Your task to perform on an android device: Is it going to rain tomorrow? Image 0: 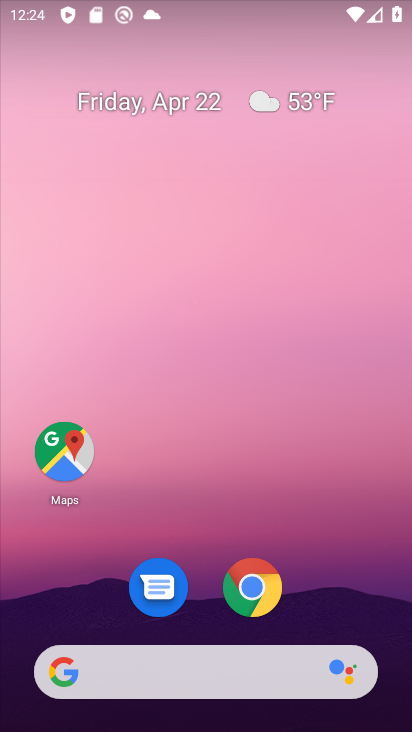
Step 0: drag from (352, 547) to (346, 88)
Your task to perform on an android device: Is it going to rain tomorrow? Image 1: 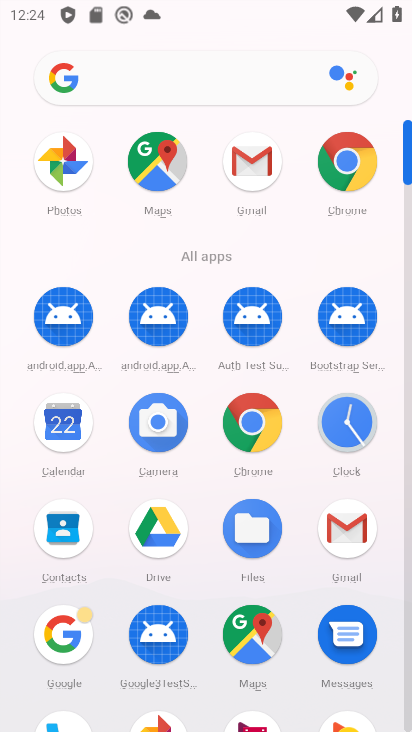
Step 1: click (253, 418)
Your task to perform on an android device: Is it going to rain tomorrow? Image 2: 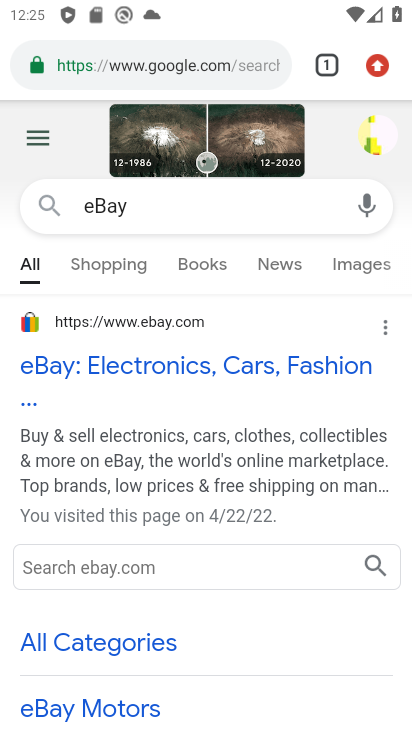
Step 2: click (252, 61)
Your task to perform on an android device: Is it going to rain tomorrow? Image 3: 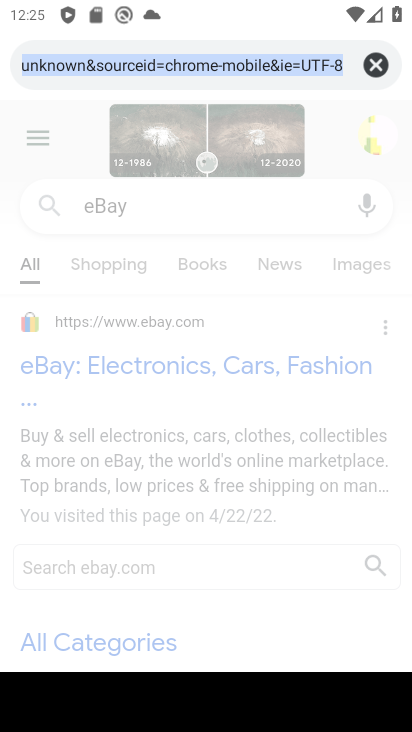
Step 3: click (370, 63)
Your task to perform on an android device: Is it going to rain tomorrow? Image 4: 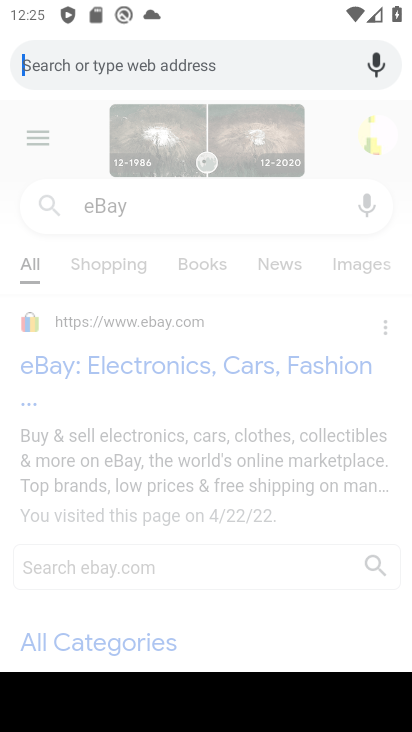
Step 4: type "Is it going to rain tomorrow?"
Your task to perform on an android device: Is it going to rain tomorrow? Image 5: 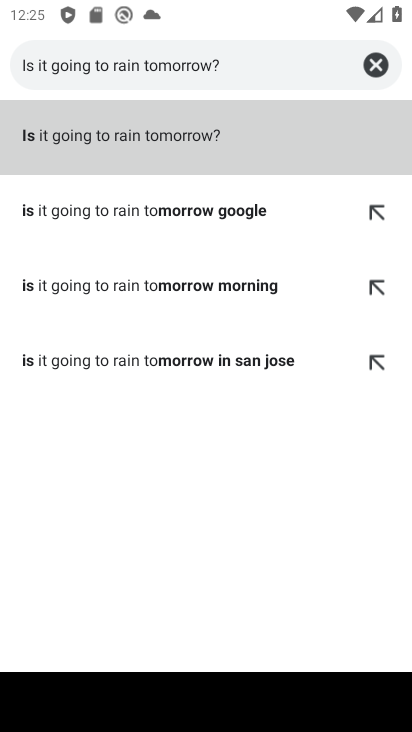
Step 5: click (114, 137)
Your task to perform on an android device: Is it going to rain tomorrow? Image 6: 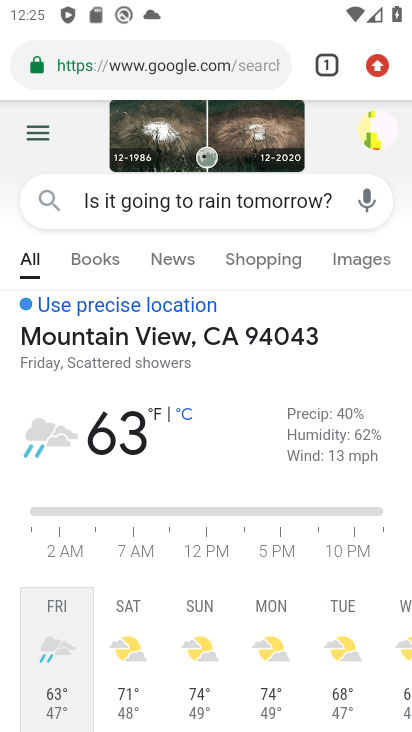
Step 6: task complete